Your task to perform on an android device: Find coffee shops on Maps Image 0: 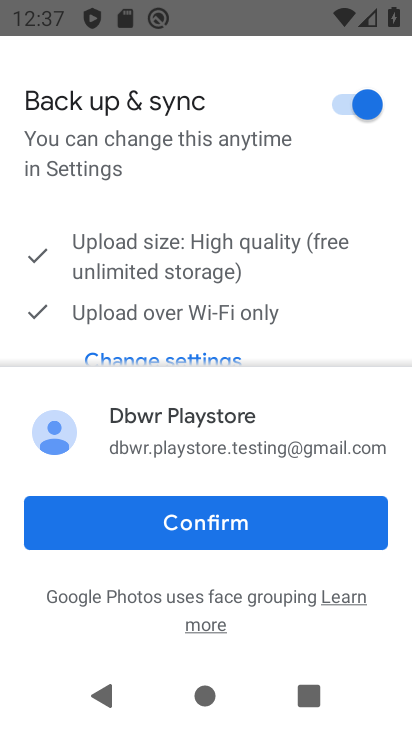
Step 0: press home button
Your task to perform on an android device: Find coffee shops on Maps Image 1: 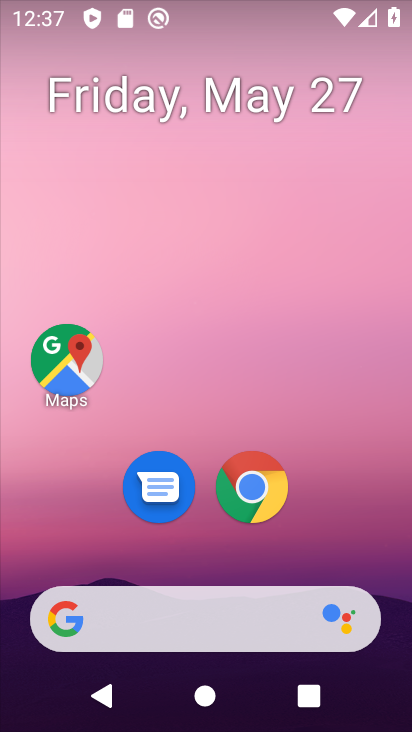
Step 1: click (62, 355)
Your task to perform on an android device: Find coffee shops on Maps Image 2: 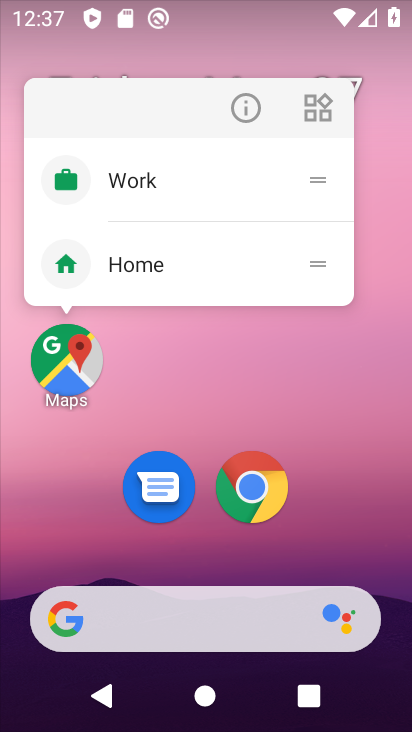
Step 2: click (82, 362)
Your task to perform on an android device: Find coffee shops on Maps Image 3: 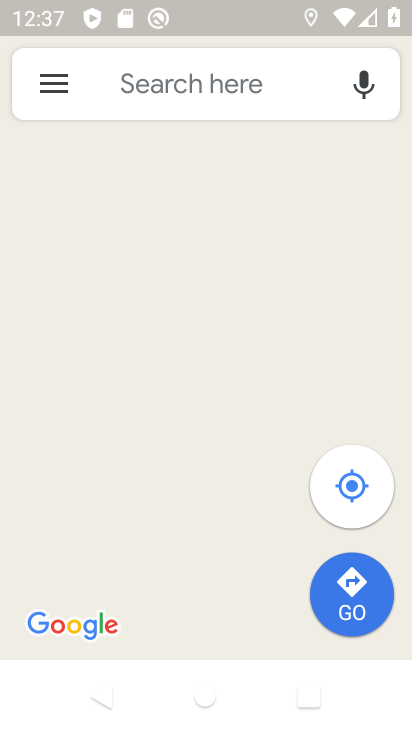
Step 3: click (206, 84)
Your task to perform on an android device: Find coffee shops on Maps Image 4: 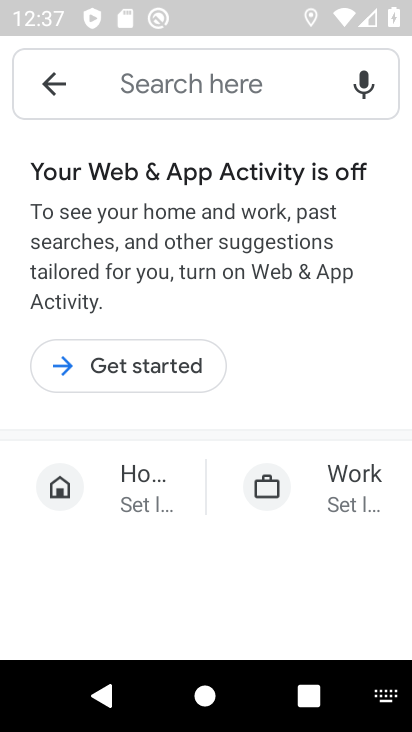
Step 4: click (121, 358)
Your task to perform on an android device: Find coffee shops on Maps Image 5: 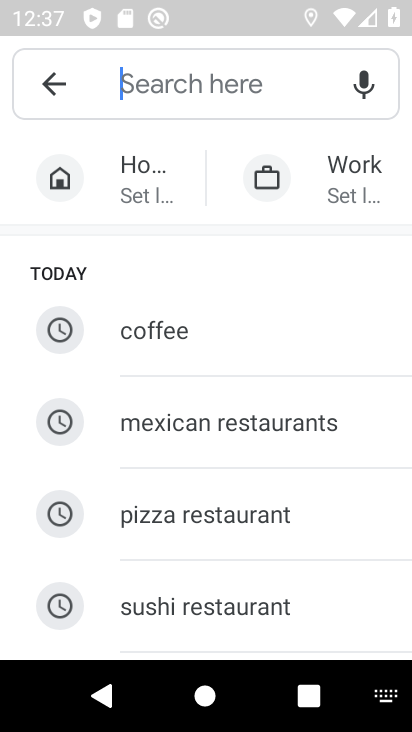
Step 5: click (174, 338)
Your task to perform on an android device: Find coffee shops on Maps Image 6: 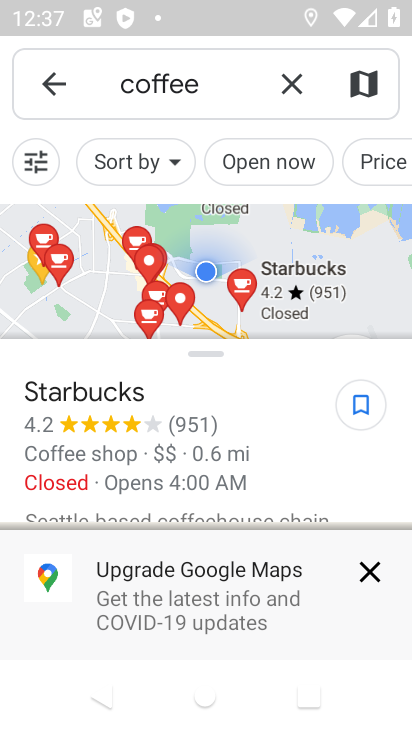
Step 6: task complete